Your task to perform on an android device: open chrome privacy settings Image 0: 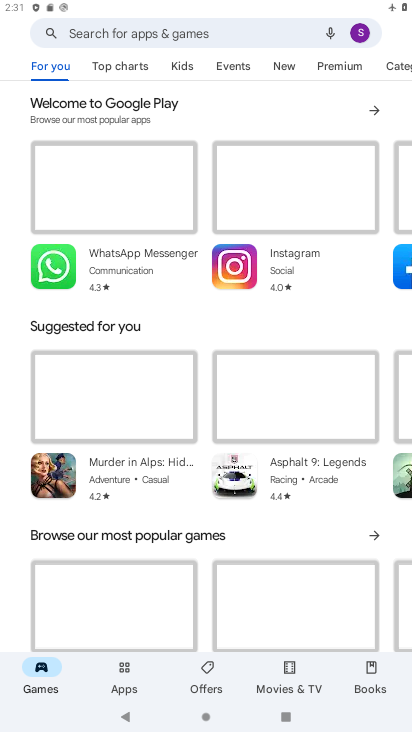
Step 0: press back button
Your task to perform on an android device: open chrome privacy settings Image 1: 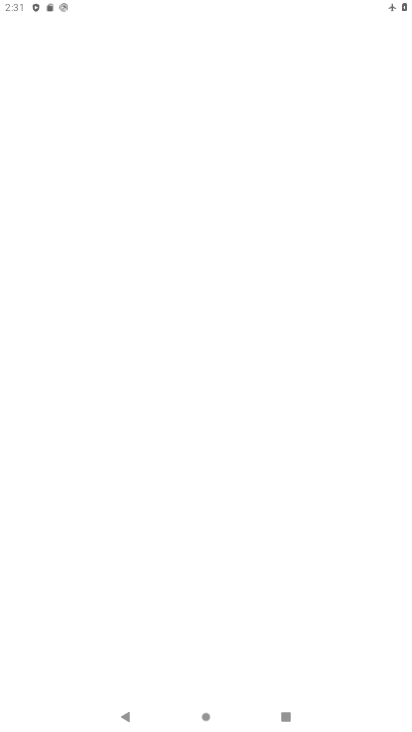
Step 1: press back button
Your task to perform on an android device: open chrome privacy settings Image 2: 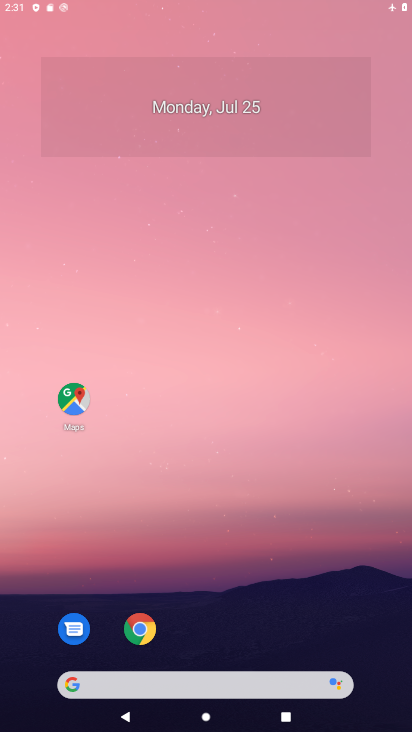
Step 2: press back button
Your task to perform on an android device: open chrome privacy settings Image 3: 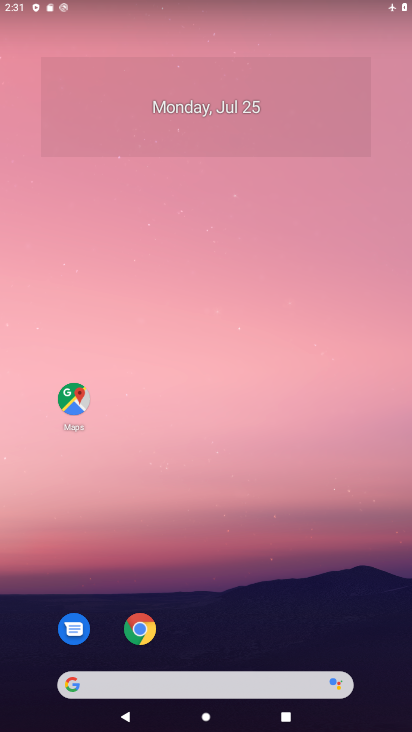
Step 3: drag from (226, 511) to (197, 309)
Your task to perform on an android device: open chrome privacy settings Image 4: 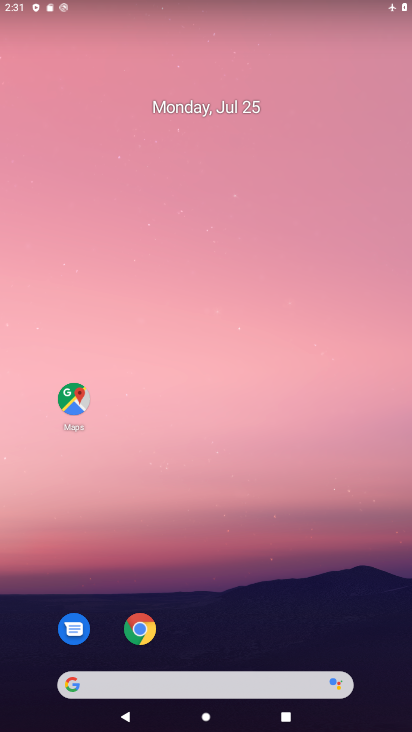
Step 4: drag from (261, 611) to (173, 119)
Your task to perform on an android device: open chrome privacy settings Image 5: 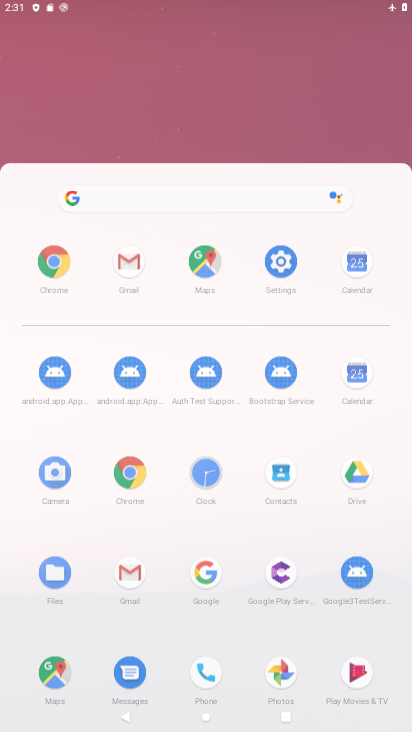
Step 5: drag from (199, 303) to (170, 107)
Your task to perform on an android device: open chrome privacy settings Image 6: 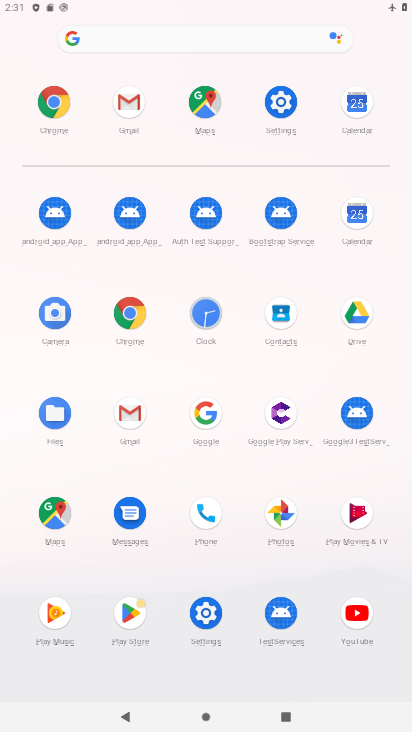
Step 6: drag from (248, 477) to (238, 248)
Your task to perform on an android device: open chrome privacy settings Image 7: 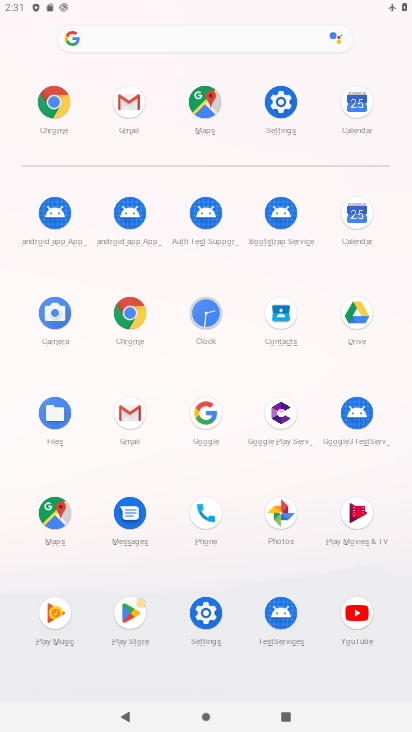
Step 7: click (193, 622)
Your task to perform on an android device: open chrome privacy settings Image 8: 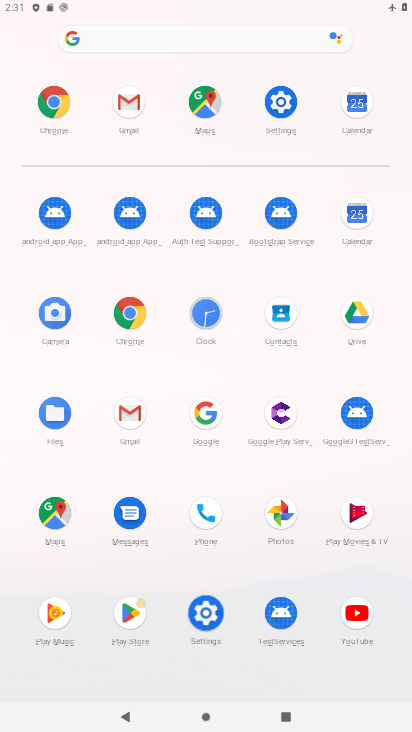
Step 8: click (192, 621)
Your task to perform on an android device: open chrome privacy settings Image 9: 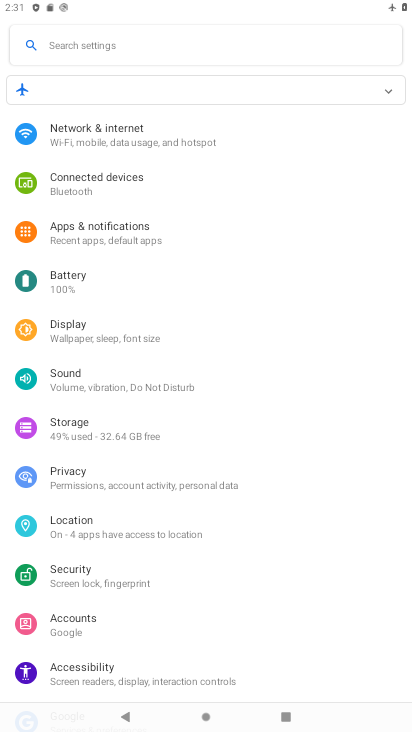
Step 9: click (77, 478)
Your task to perform on an android device: open chrome privacy settings Image 10: 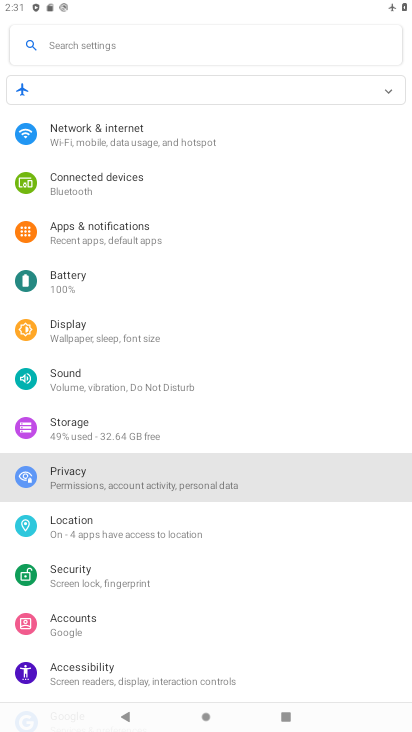
Step 10: click (76, 478)
Your task to perform on an android device: open chrome privacy settings Image 11: 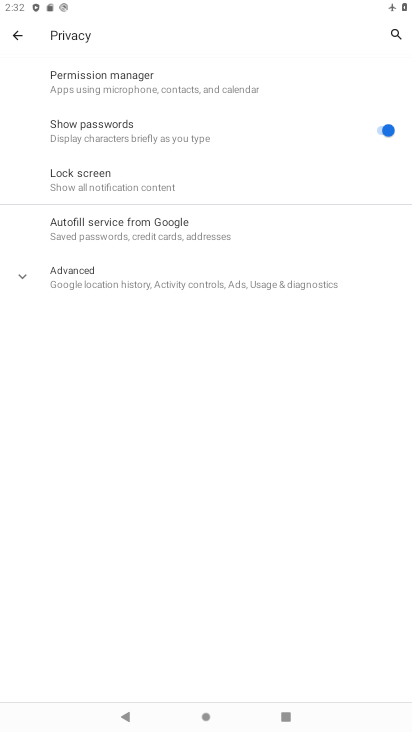
Step 11: task complete